Your task to perform on an android device: Add jbl flip 4 to the cart on costco Image 0: 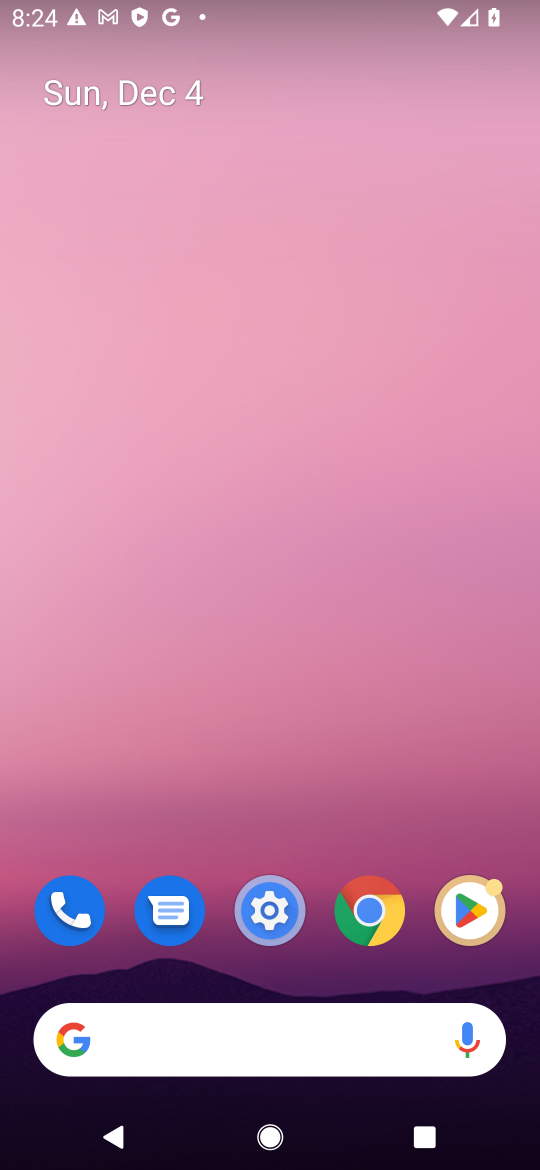
Step 0: drag from (417, 894) to (535, 72)
Your task to perform on an android device: Add jbl flip 4 to the cart on costco Image 1: 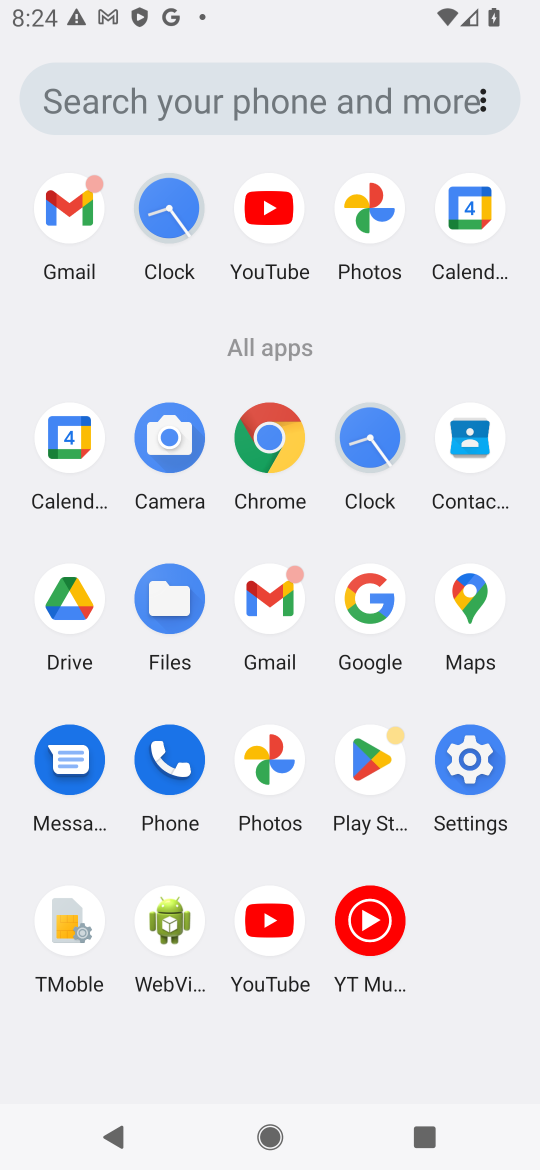
Step 1: click (268, 433)
Your task to perform on an android device: Add jbl flip 4 to the cart on costco Image 2: 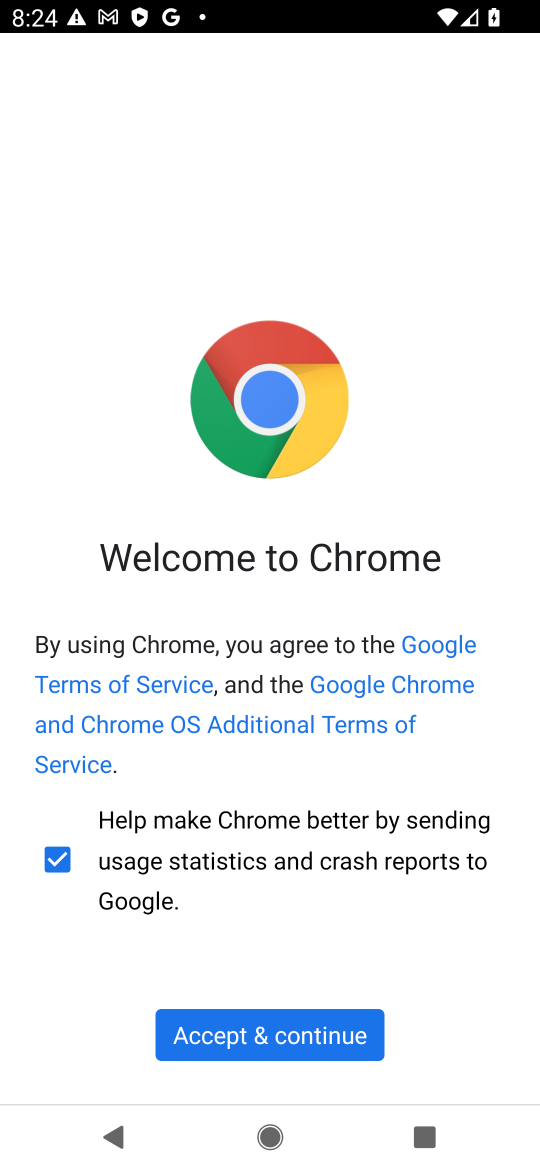
Step 2: click (255, 1046)
Your task to perform on an android device: Add jbl flip 4 to the cart on costco Image 3: 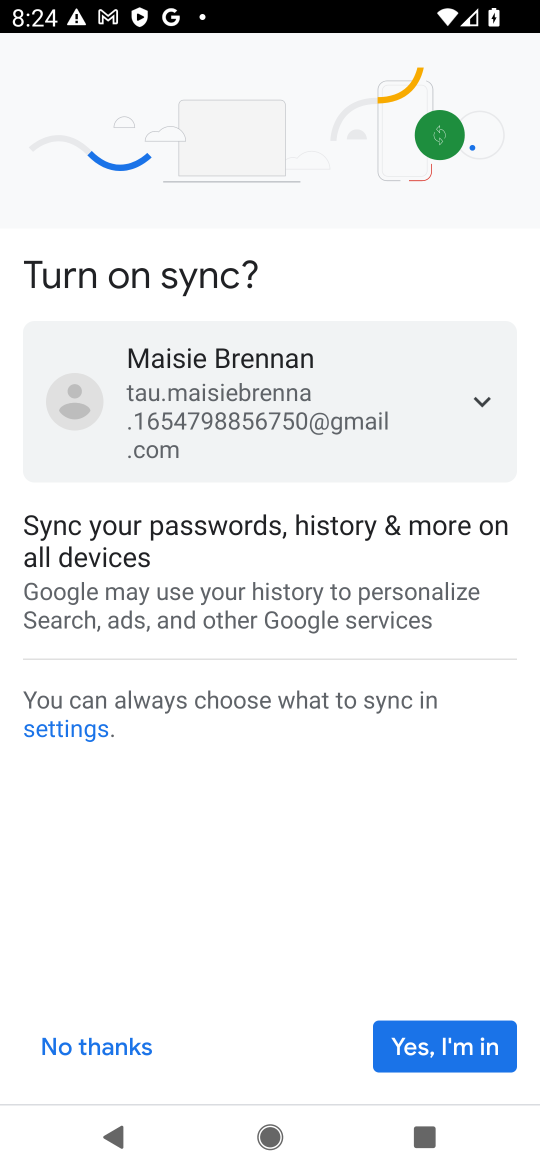
Step 3: click (467, 1052)
Your task to perform on an android device: Add jbl flip 4 to the cart on costco Image 4: 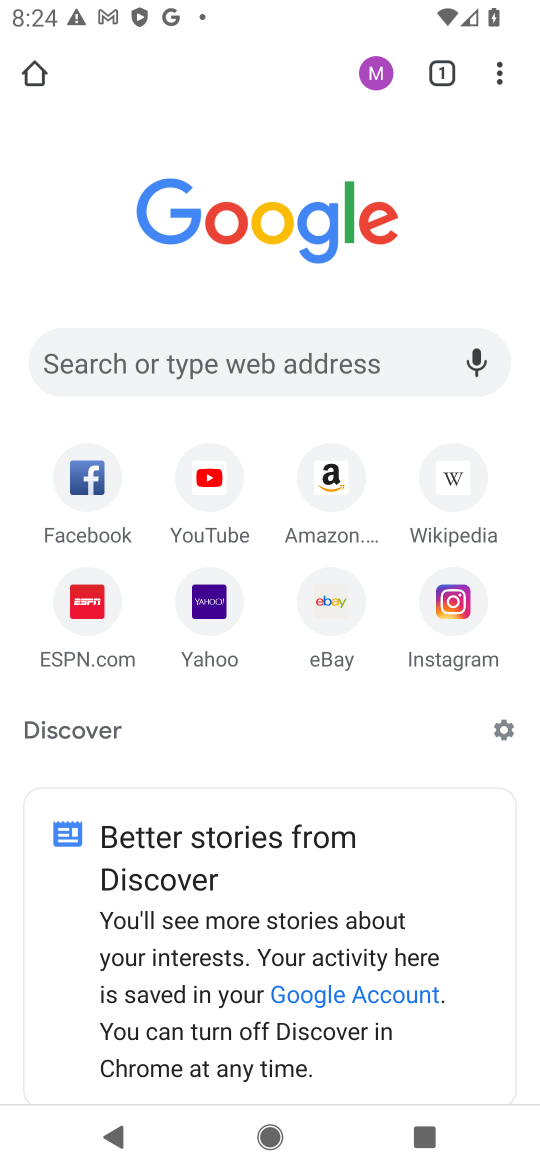
Step 4: click (182, 361)
Your task to perform on an android device: Add jbl flip 4 to the cart on costco Image 5: 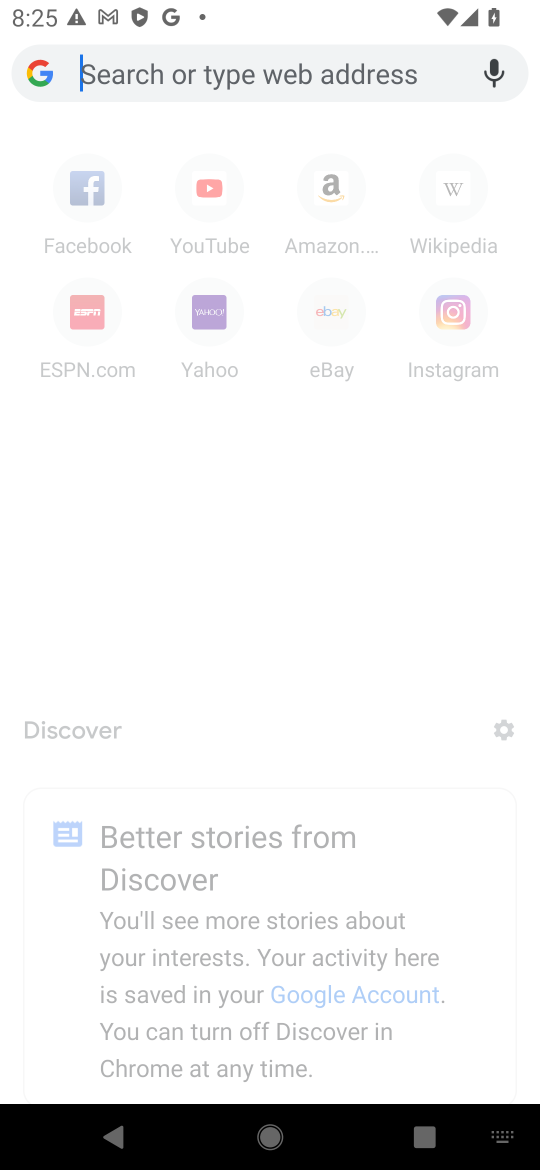
Step 5: type "costco"
Your task to perform on an android device: Add jbl flip 4 to the cart on costco Image 6: 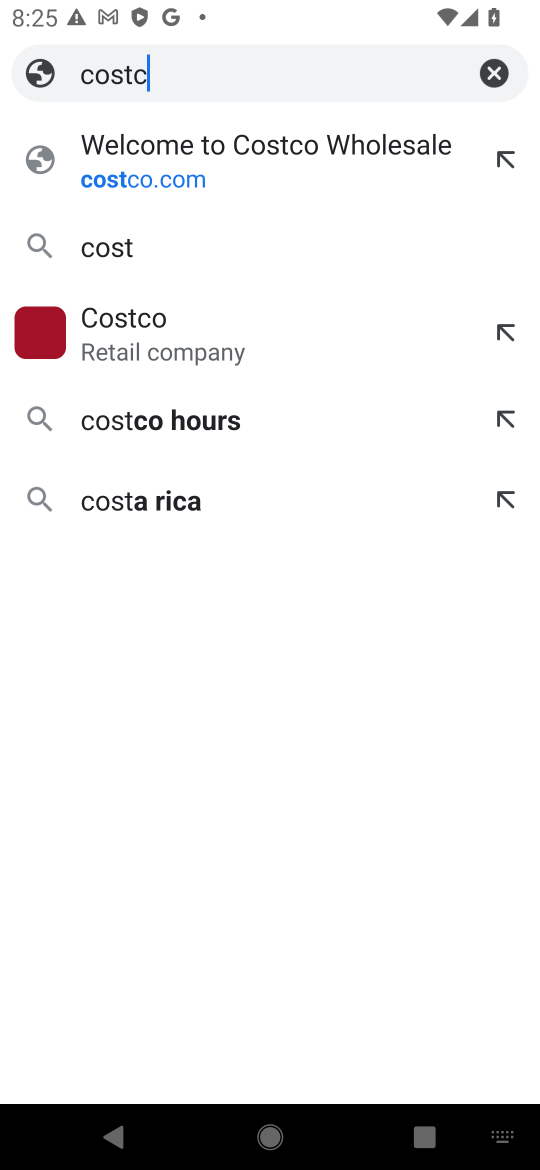
Step 6: type ""
Your task to perform on an android device: Add jbl flip 4 to the cart on costco Image 7: 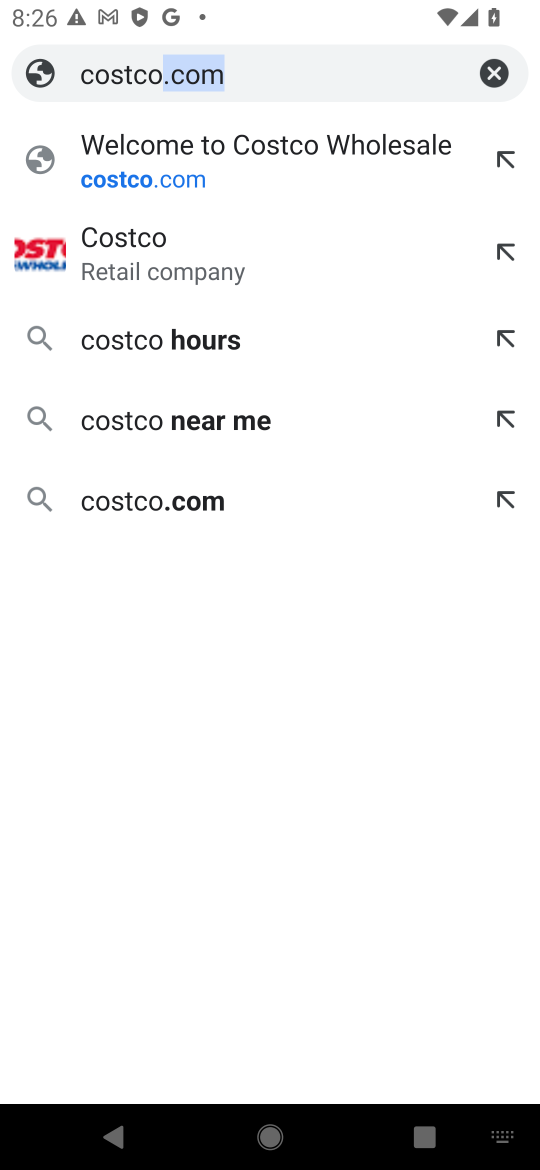
Step 7: click (113, 185)
Your task to perform on an android device: Add jbl flip 4 to the cart on costco Image 8: 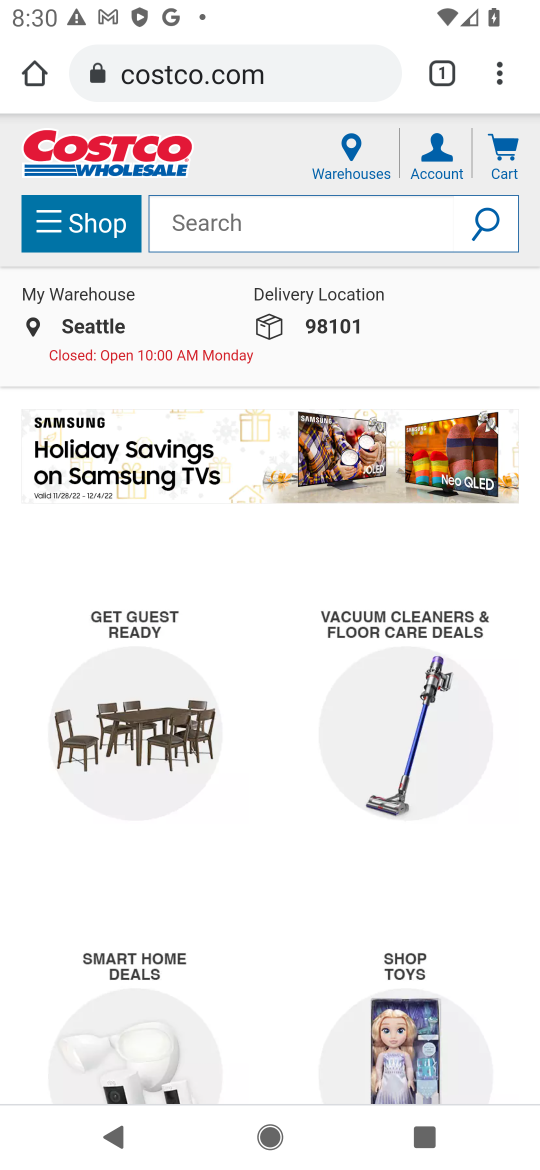
Step 8: click (300, 214)
Your task to perform on an android device: Add jbl flip 4 to the cart on costco Image 9: 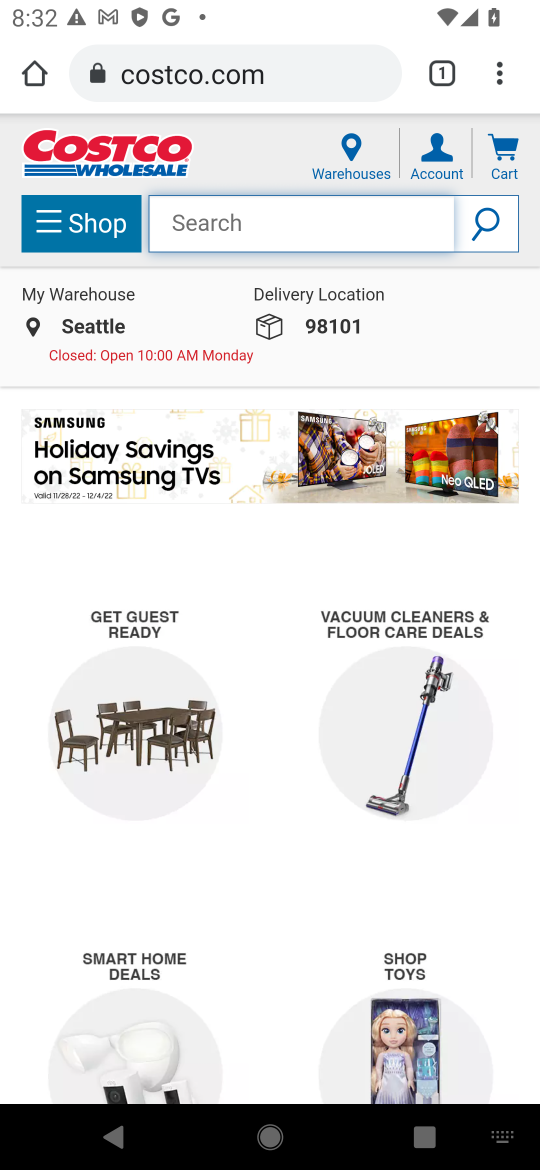
Step 9: type " jbl flip 4"
Your task to perform on an android device: Add jbl flip 4 to the cart on costco Image 10: 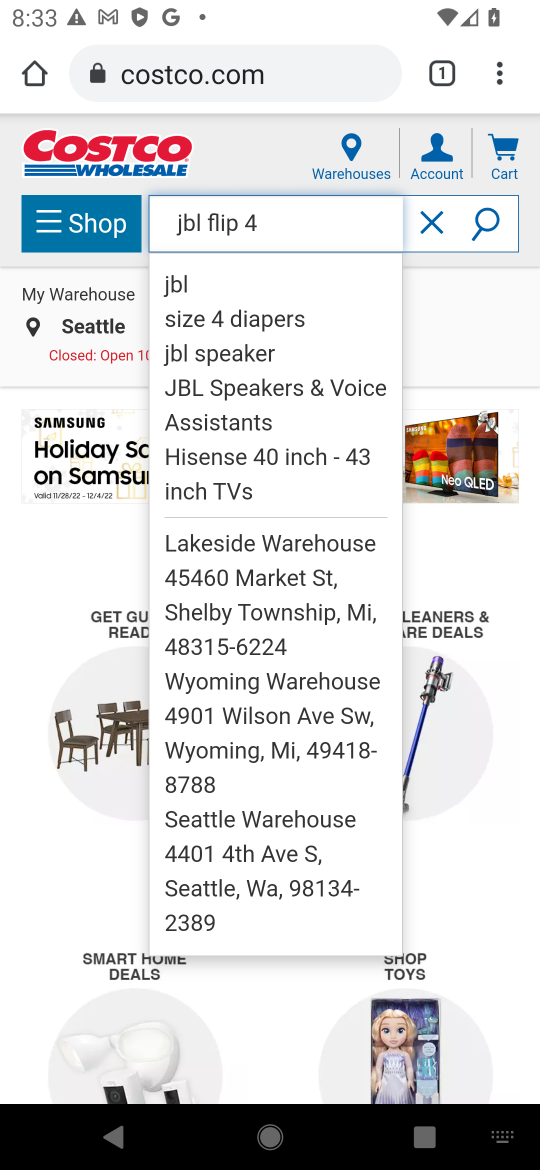
Step 10: click (473, 224)
Your task to perform on an android device: Add jbl flip 4 to the cart on costco Image 11: 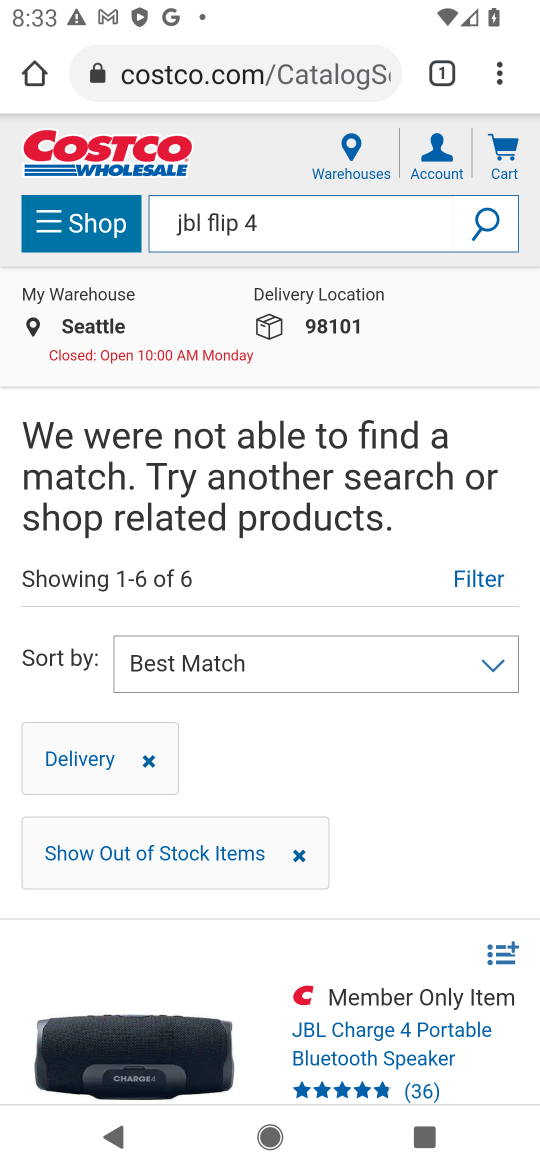
Step 11: drag from (332, 975) to (367, 347)
Your task to perform on an android device: Add jbl flip 4 to the cart on costco Image 12: 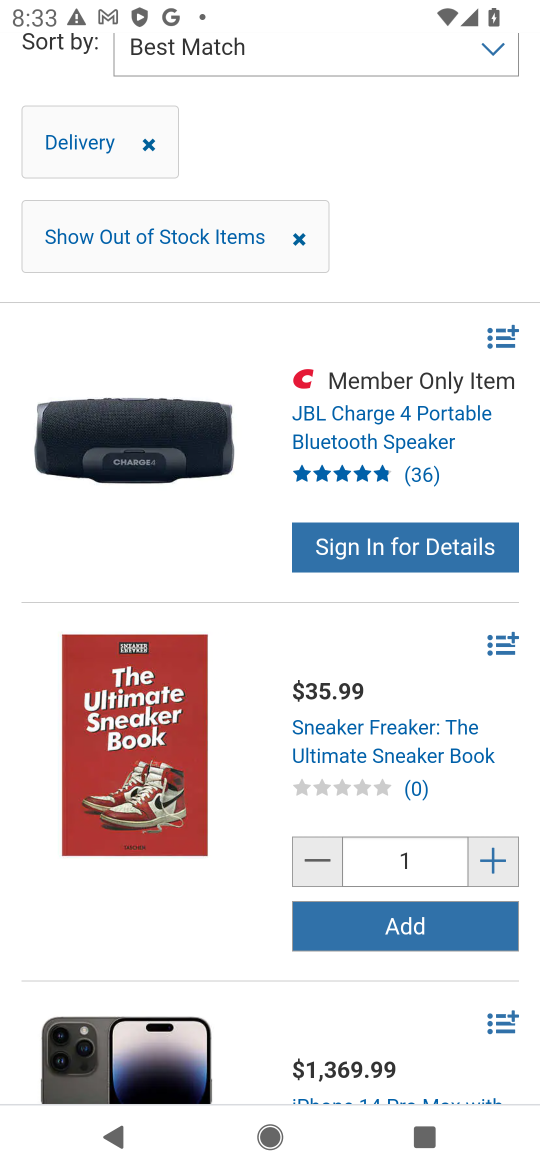
Step 12: click (159, 411)
Your task to perform on an android device: Add jbl flip 4 to the cart on costco Image 13: 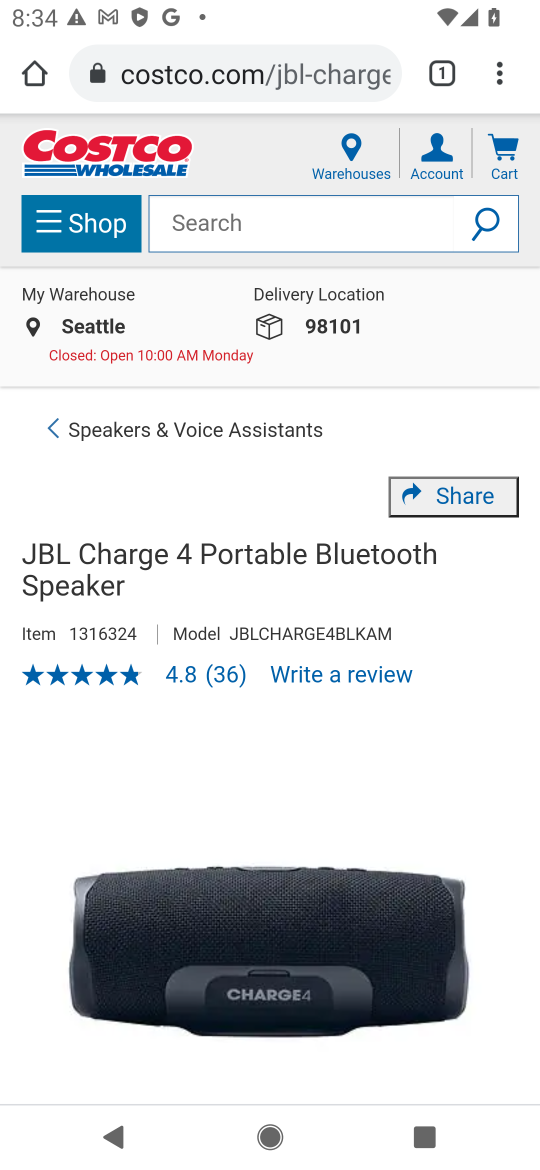
Step 13: task complete